Your task to perform on an android device: Open Yahoo.com Image 0: 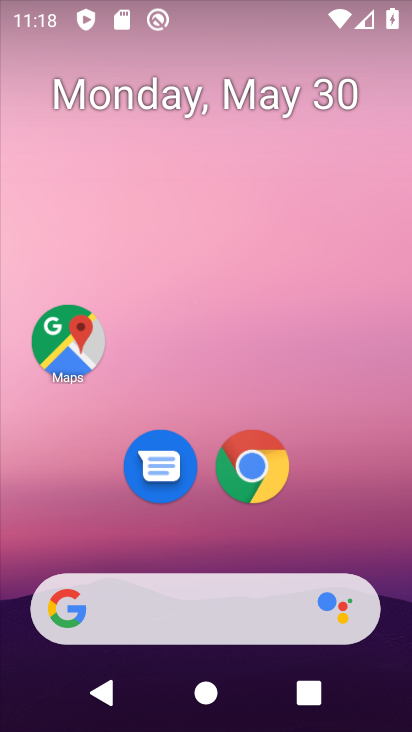
Step 0: click (229, 478)
Your task to perform on an android device: Open Yahoo.com Image 1: 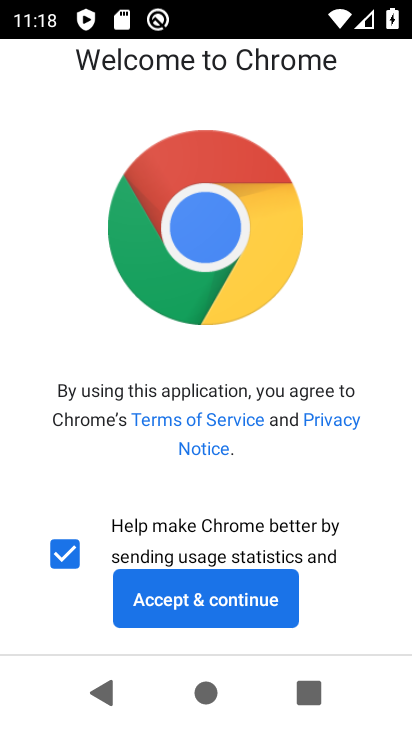
Step 1: click (202, 601)
Your task to perform on an android device: Open Yahoo.com Image 2: 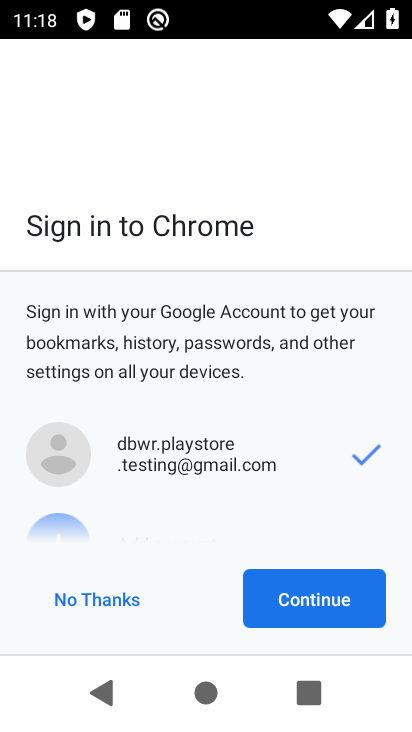
Step 2: click (315, 621)
Your task to perform on an android device: Open Yahoo.com Image 3: 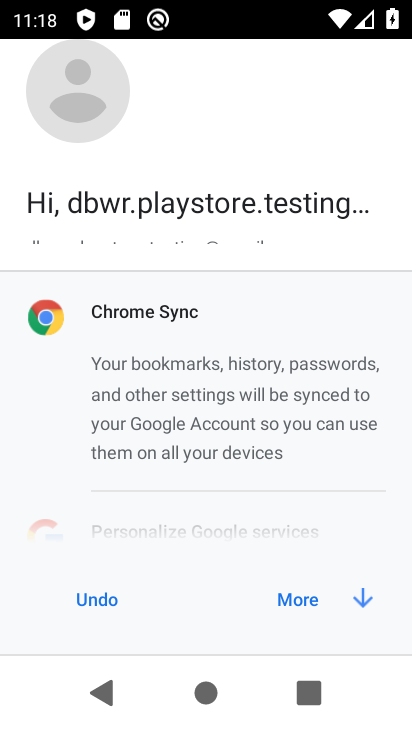
Step 3: click (307, 602)
Your task to perform on an android device: Open Yahoo.com Image 4: 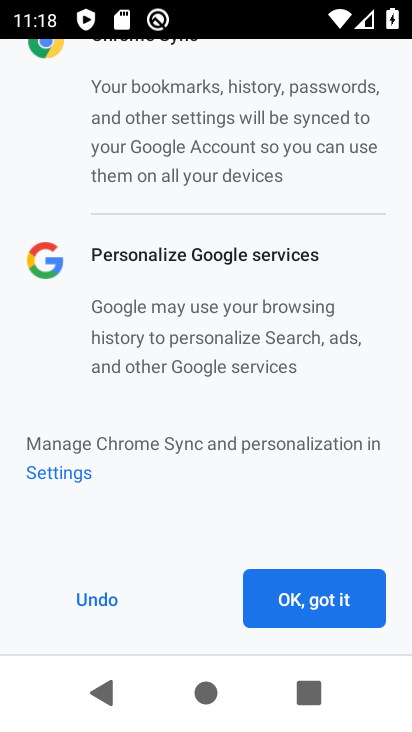
Step 4: click (307, 602)
Your task to perform on an android device: Open Yahoo.com Image 5: 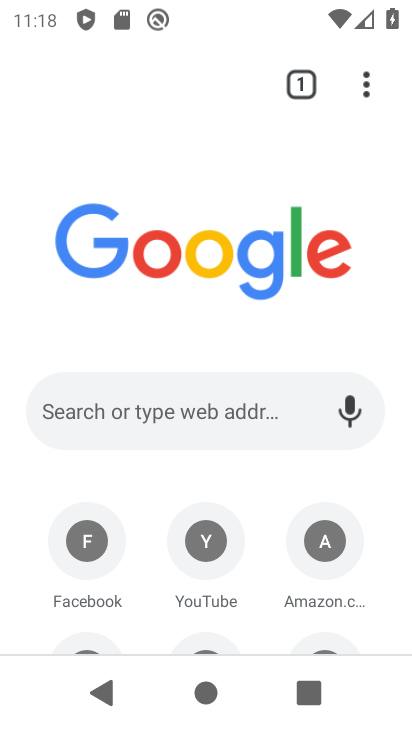
Step 5: click (216, 399)
Your task to perform on an android device: Open Yahoo.com Image 6: 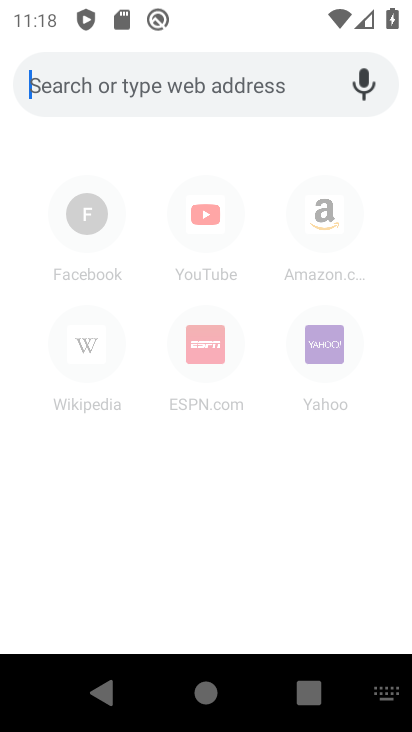
Step 6: click (341, 368)
Your task to perform on an android device: Open Yahoo.com Image 7: 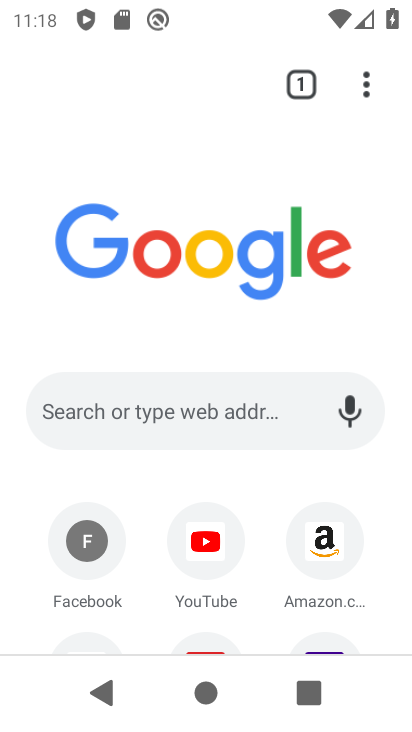
Step 7: drag from (364, 584) to (311, 106)
Your task to perform on an android device: Open Yahoo.com Image 8: 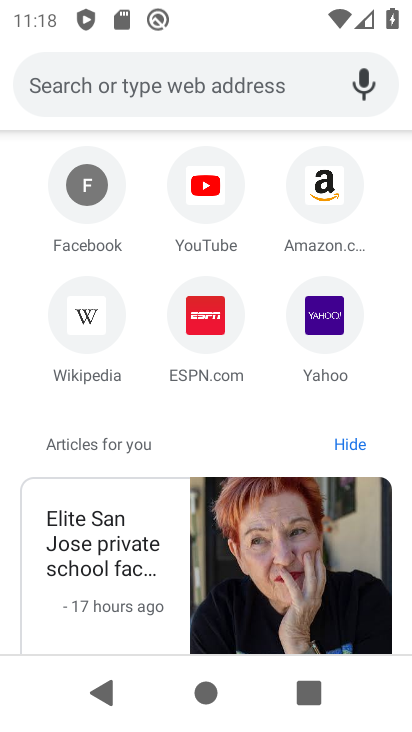
Step 8: click (334, 351)
Your task to perform on an android device: Open Yahoo.com Image 9: 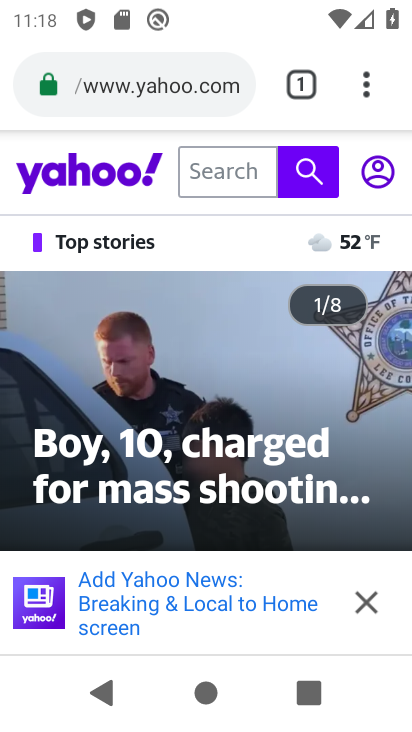
Step 9: task complete